Your task to perform on an android device: Open Google Maps Image 0: 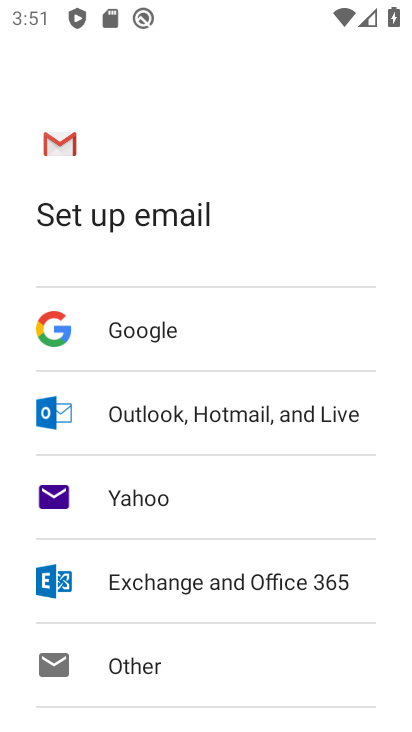
Step 0: press home button
Your task to perform on an android device: Open Google Maps Image 1: 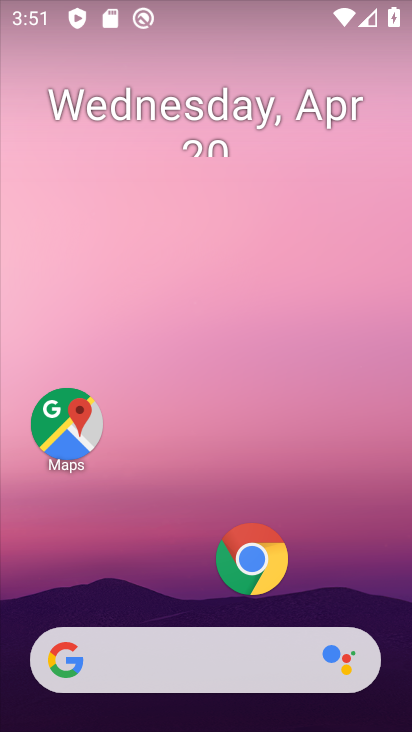
Step 1: click (54, 426)
Your task to perform on an android device: Open Google Maps Image 2: 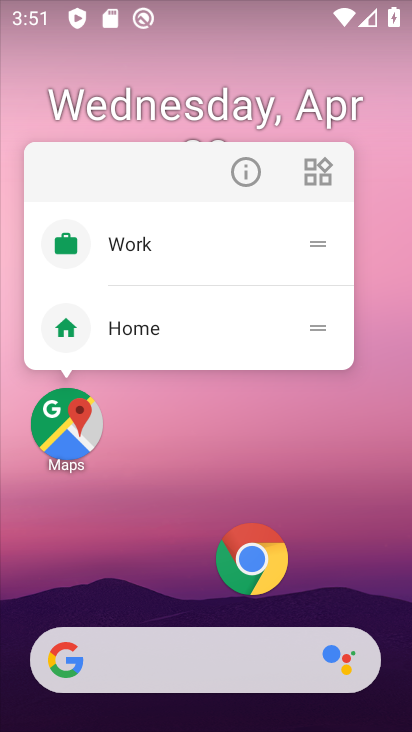
Step 2: click (247, 175)
Your task to perform on an android device: Open Google Maps Image 3: 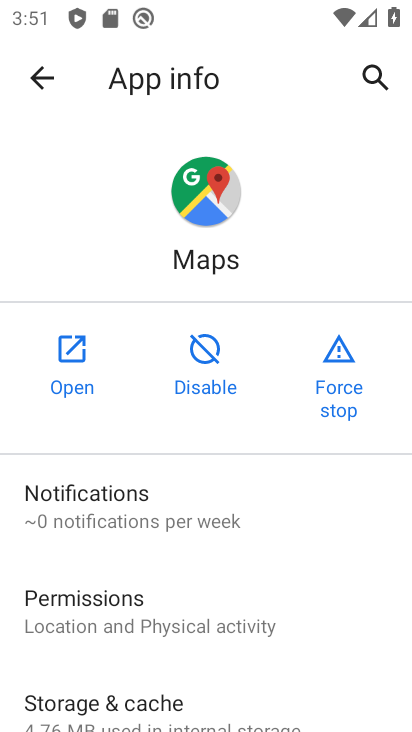
Step 3: click (84, 354)
Your task to perform on an android device: Open Google Maps Image 4: 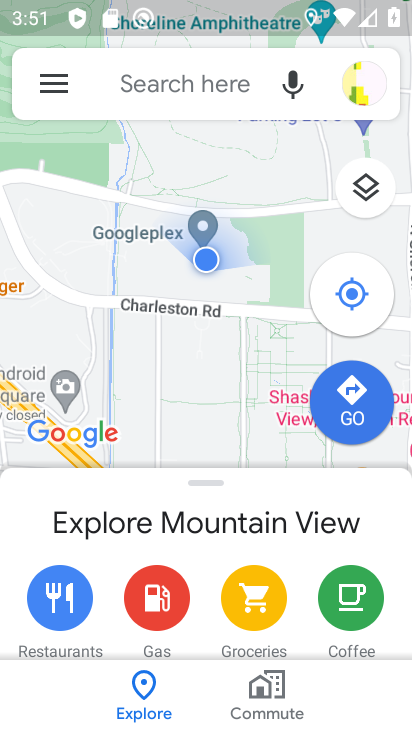
Step 4: task complete